Your task to perform on an android device: Go to Amazon Image 0: 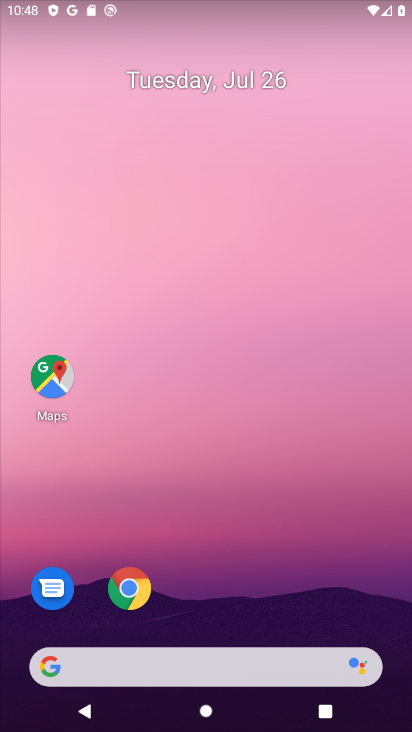
Step 0: click (124, 583)
Your task to perform on an android device: Go to Amazon Image 1: 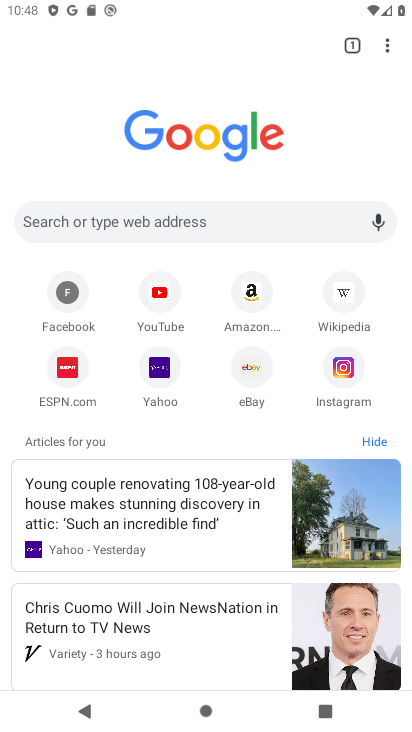
Step 1: click (250, 286)
Your task to perform on an android device: Go to Amazon Image 2: 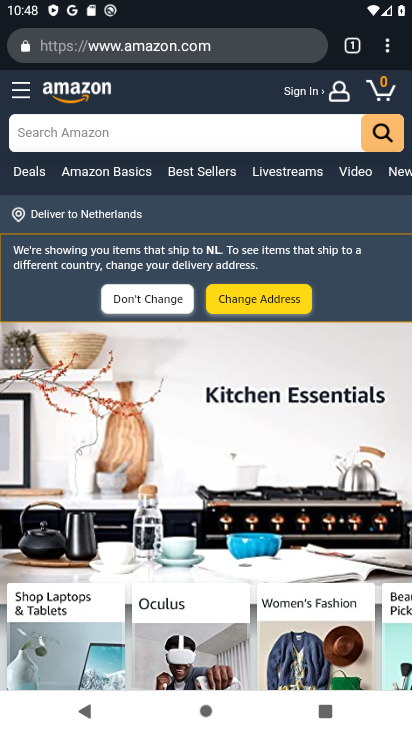
Step 2: task complete